Your task to perform on an android device: Go to sound settings Image 0: 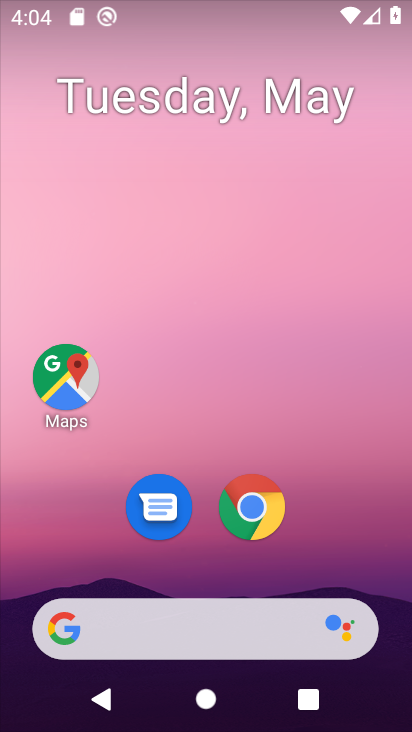
Step 0: drag from (202, 572) to (203, 162)
Your task to perform on an android device: Go to sound settings Image 1: 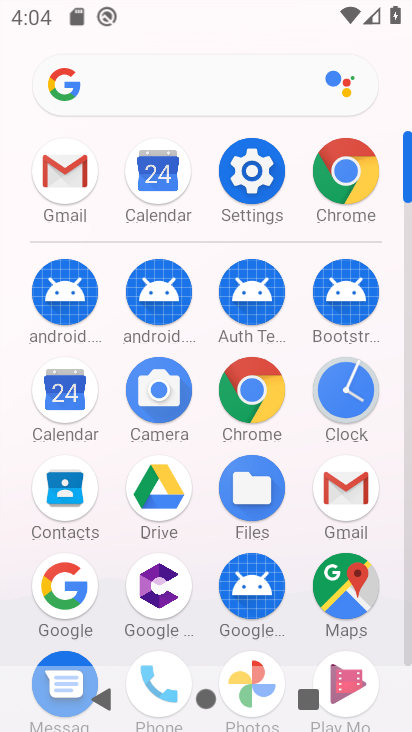
Step 1: click (245, 173)
Your task to perform on an android device: Go to sound settings Image 2: 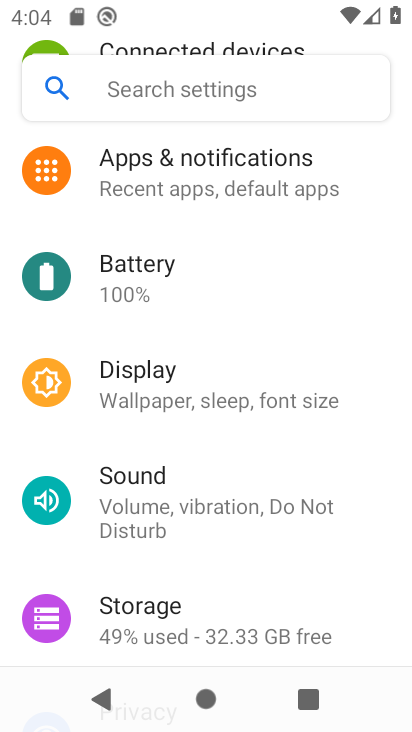
Step 2: click (158, 494)
Your task to perform on an android device: Go to sound settings Image 3: 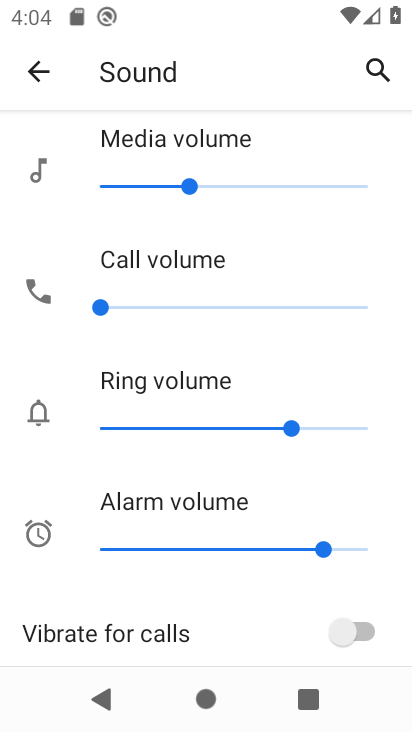
Step 3: task complete